Your task to perform on an android device: What's the news in Vietnam? Image 0: 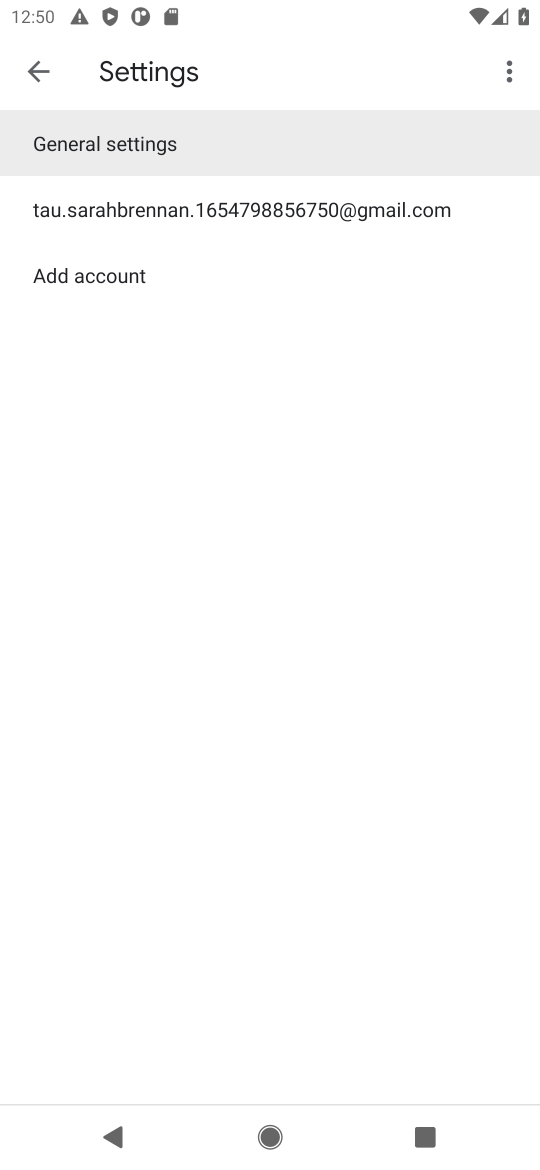
Step 0: press home button
Your task to perform on an android device: What's the news in Vietnam? Image 1: 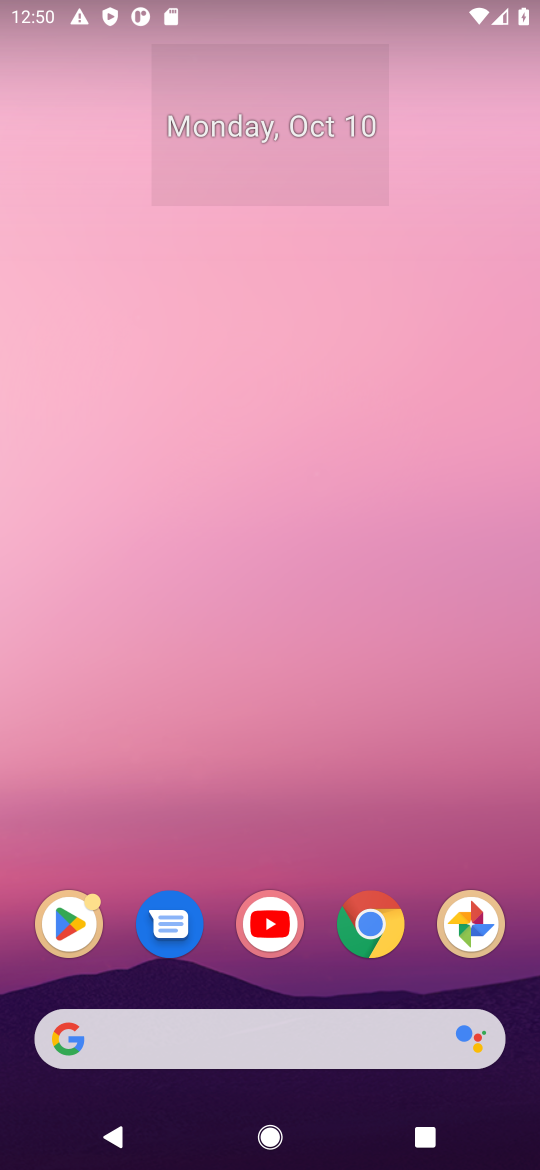
Step 1: drag from (274, 543) to (263, 30)
Your task to perform on an android device: What's the news in Vietnam? Image 2: 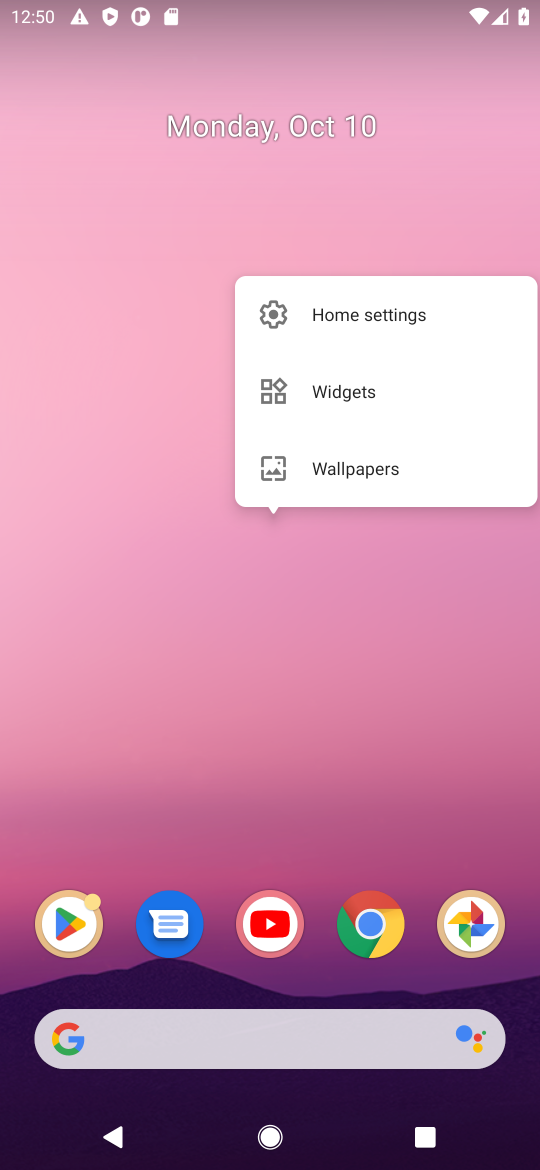
Step 2: drag from (311, 1043) to (181, 50)
Your task to perform on an android device: What's the news in Vietnam? Image 3: 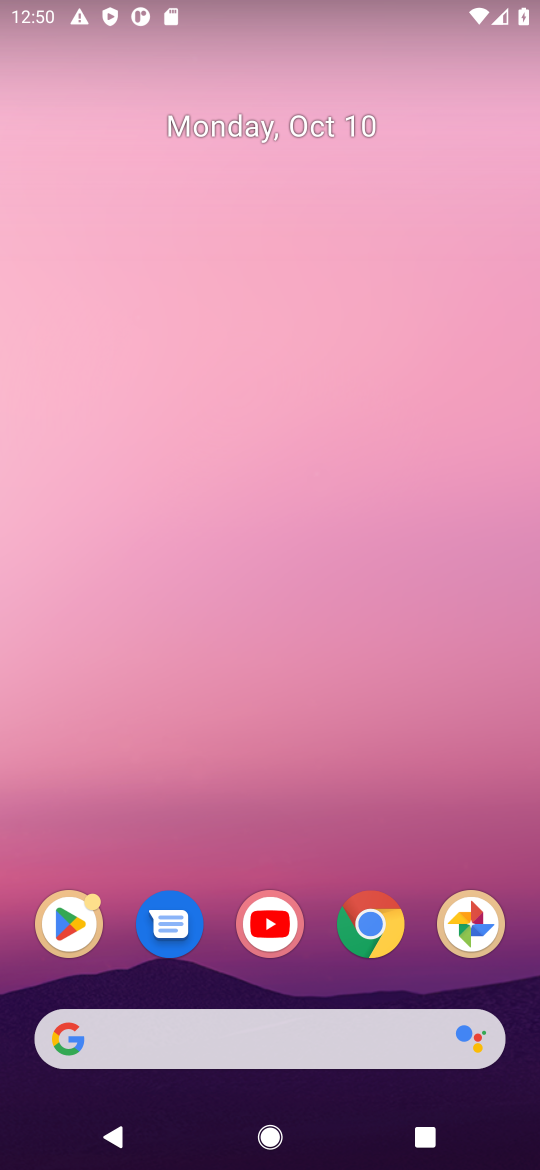
Step 3: drag from (264, 958) to (240, 64)
Your task to perform on an android device: What's the news in Vietnam? Image 4: 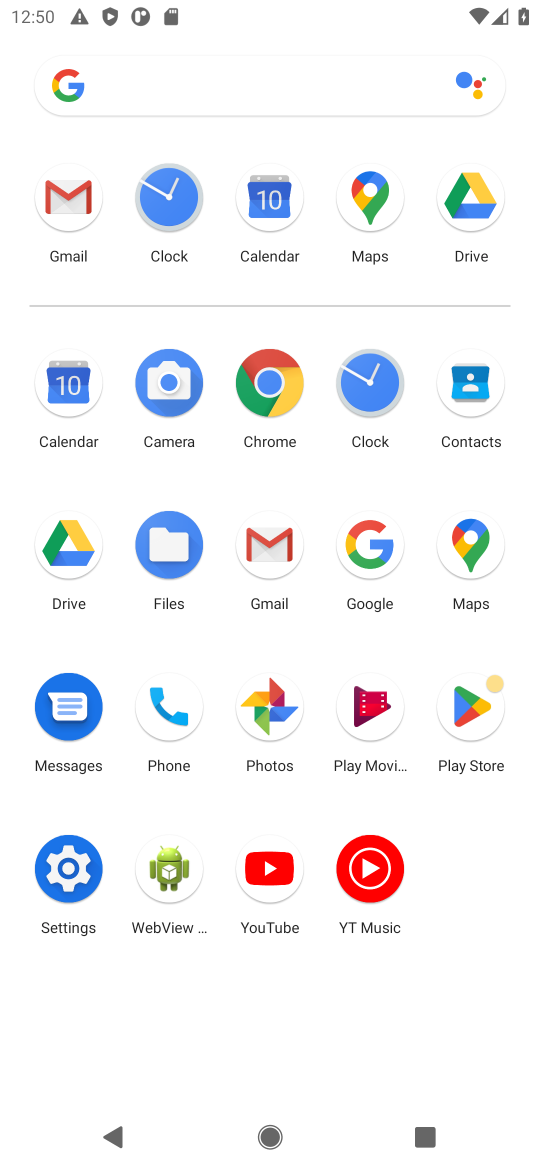
Step 4: click (278, 410)
Your task to perform on an android device: What's the news in Vietnam? Image 5: 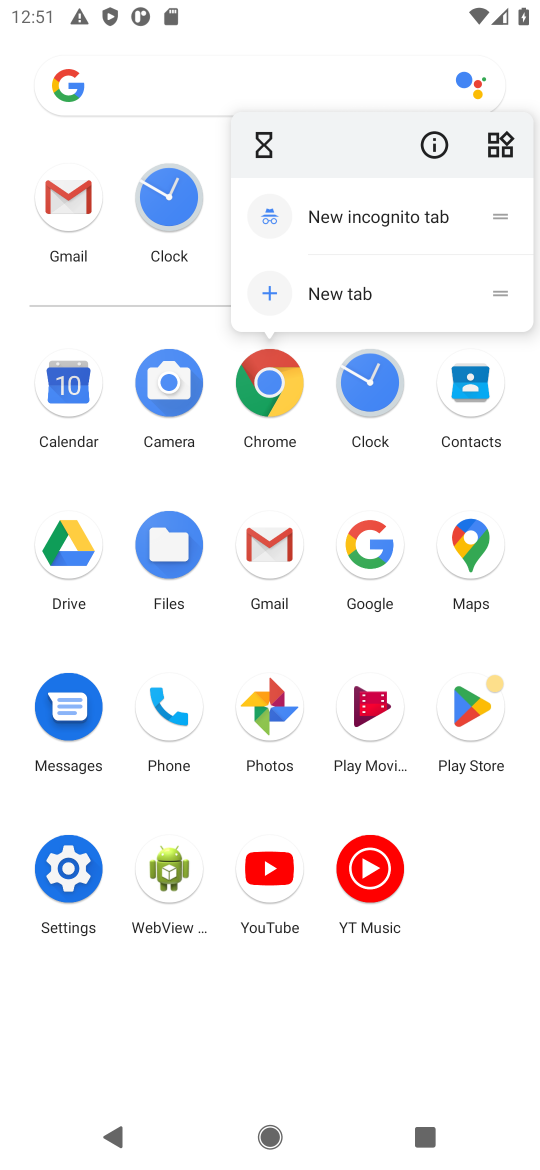
Step 5: click (262, 386)
Your task to perform on an android device: What's the news in Vietnam? Image 6: 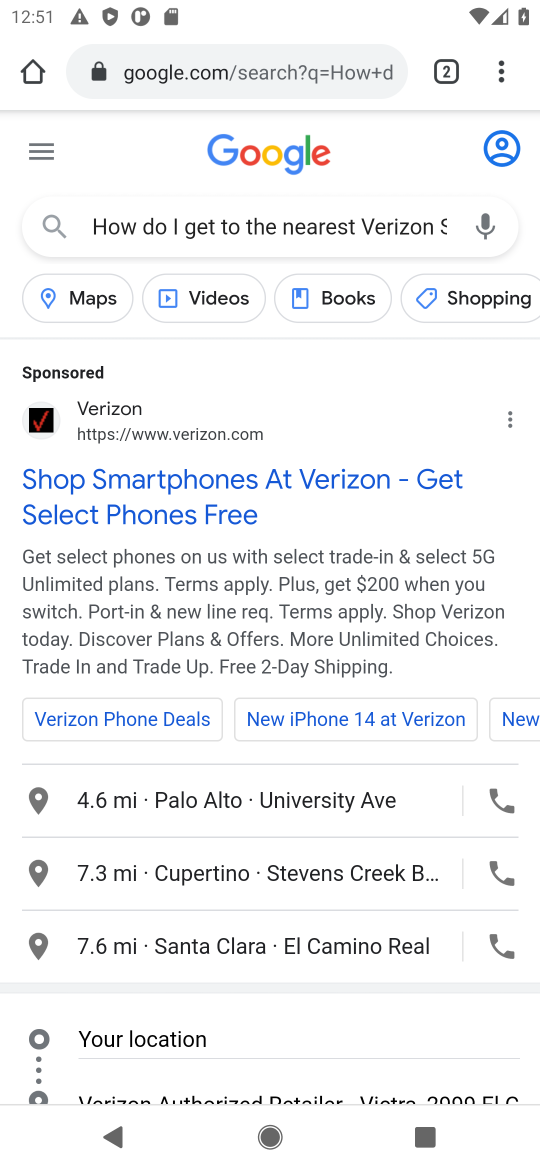
Step 6: click (288, 229)
Your task to perform on an android device: What's the news in Vietnam? Image 7: 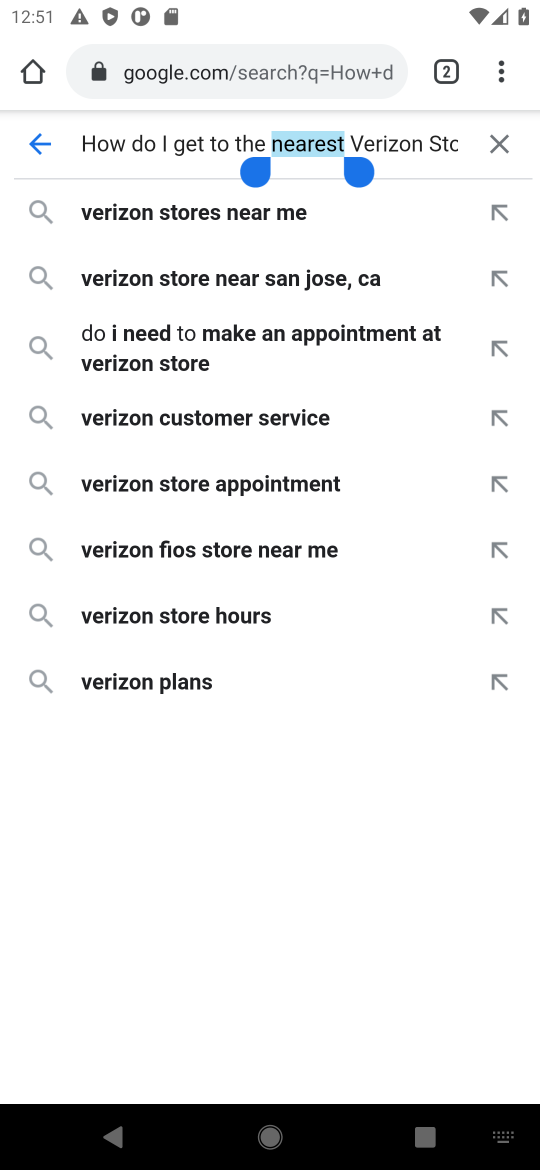
Step 7: click (338, 67)
Your task to perform on an android device: What's the news in Vietnam? Image 8: 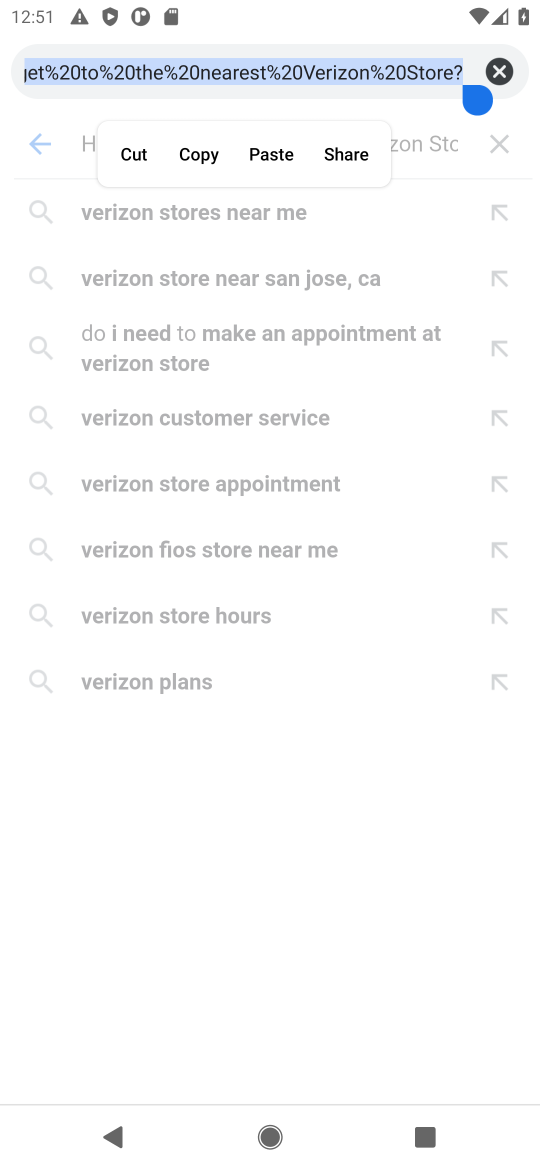
Step 8: click (500, 73)
Your task to perform on an android device: What's the news in Vietnam? Image 9: 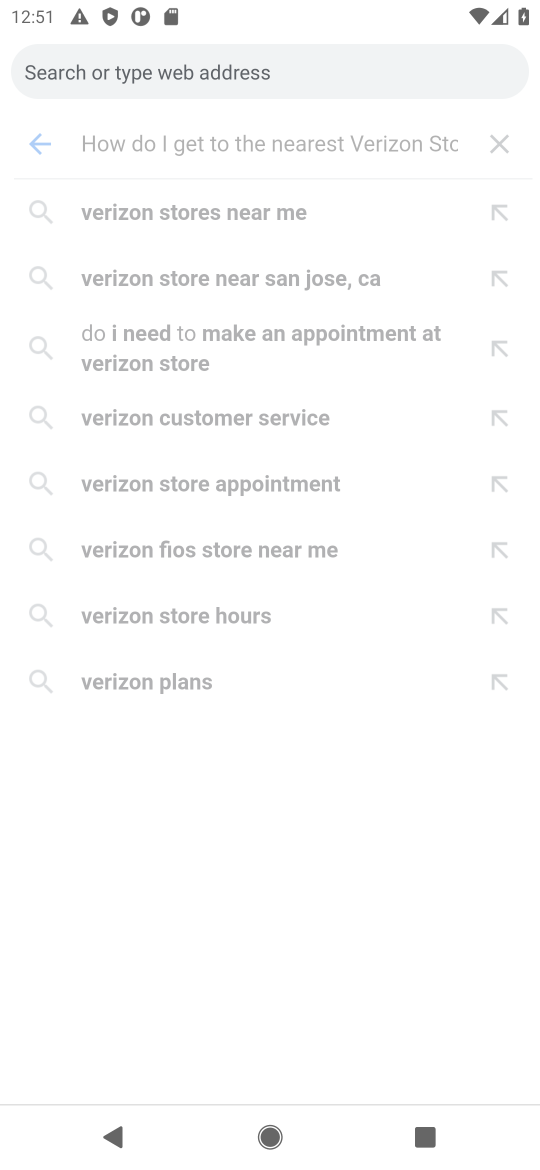
Step 9: type "What's the news in Vietnam?"
Your task to perform on an android device: What's the news in Vietnam? Image 10: 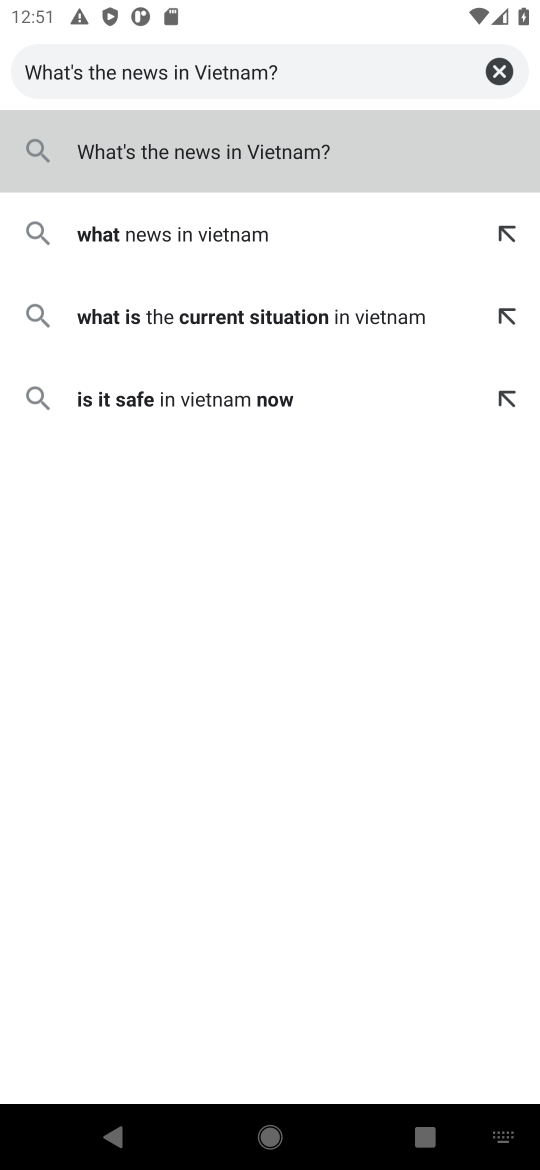
Step 10: press enter
Your task to perform on an android device: What's the news in Vietnam? Image 11: 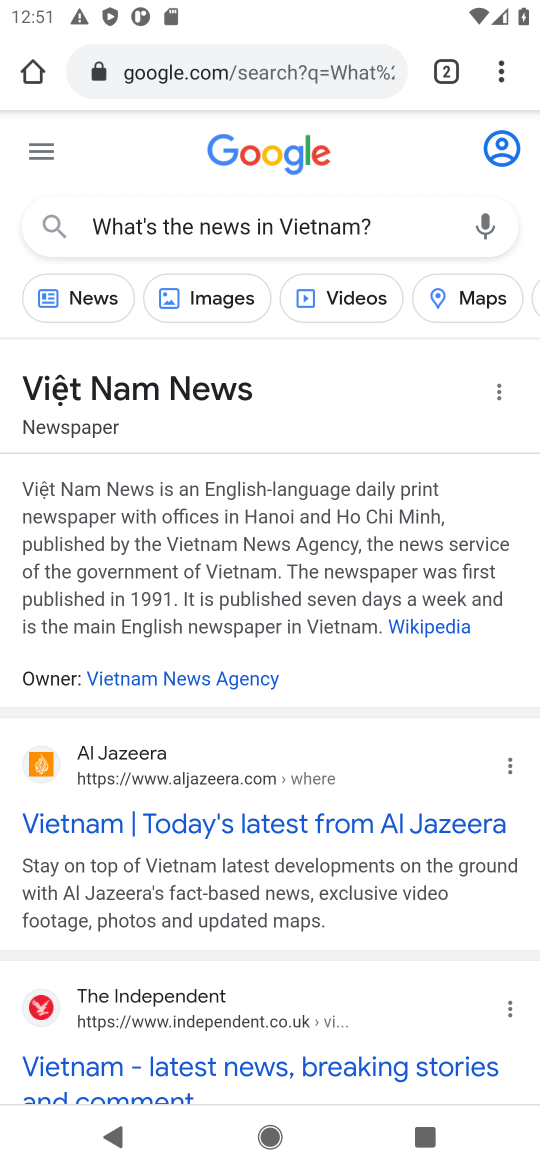
Step 11: task complete